Your task to perform on an android device: Go to sound settings Image 0: 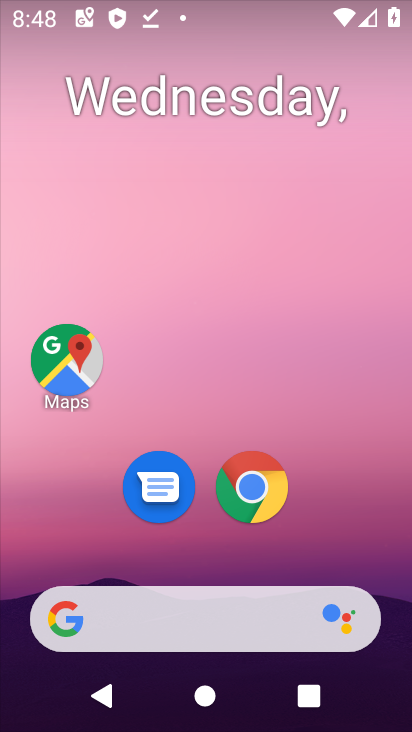
Step 0: drag from (276, 685) to (117, 32)
Your task to perform on an android device: Go to sound settings Image 1: 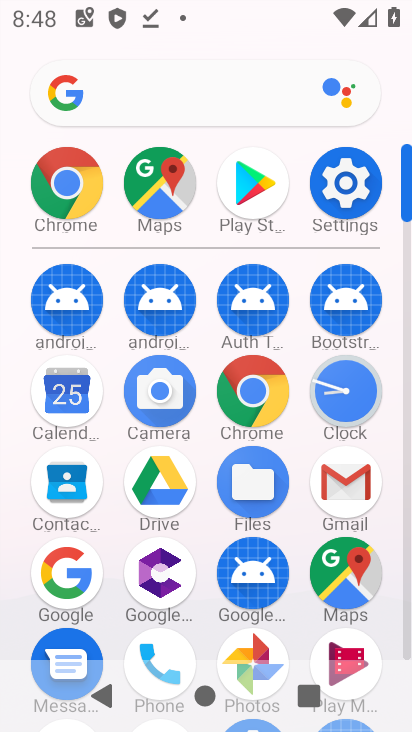
Step 1: click (364, 202)
Your task to perform on an android device: Go to sound settings Image 2: 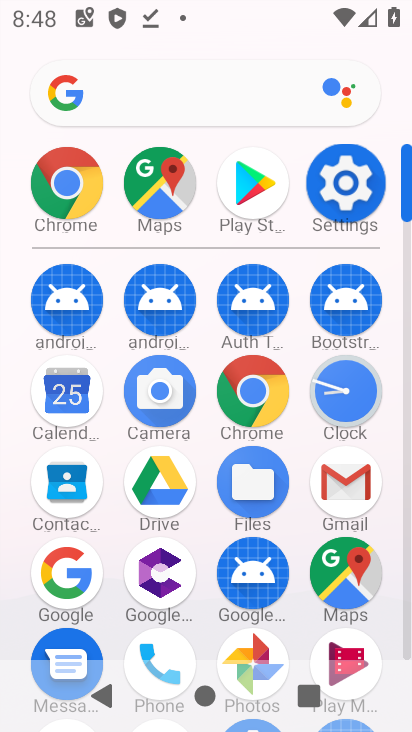
Step 2: click (366, 201)
Your task to perform on an android device: Go to sound settings Image 3: 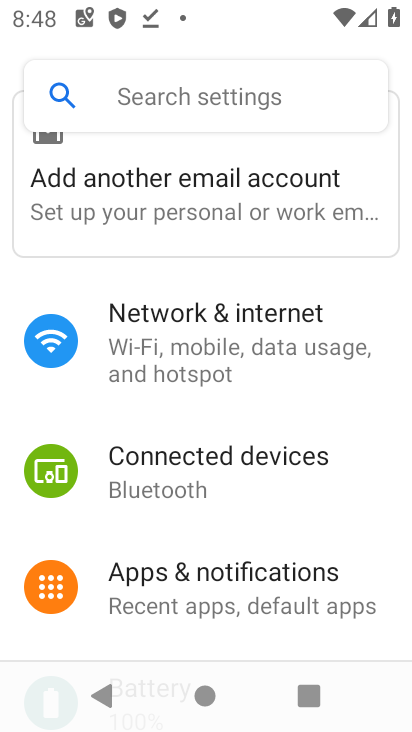
Step 3: drag from (182, 541) to (107, 217)
Your task to perform on an android device: Go to sound settings Image 4: 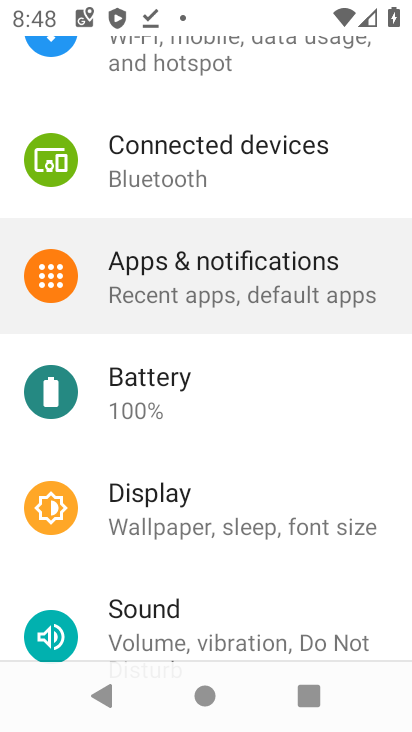
Step 4: drag from (161, 428) to (131, 246)
Your task to perform on an android device: Go to sound settings Image 5: 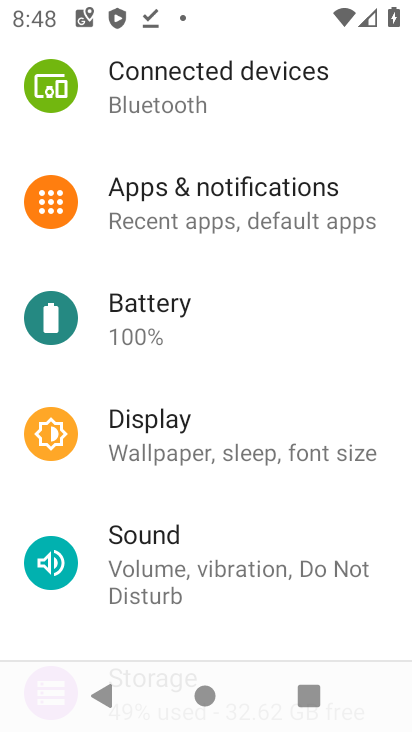
Step 5: drag from (160, 485) to (159, 544)
Your task to perform on an android device: Go to sound settings Image 6: 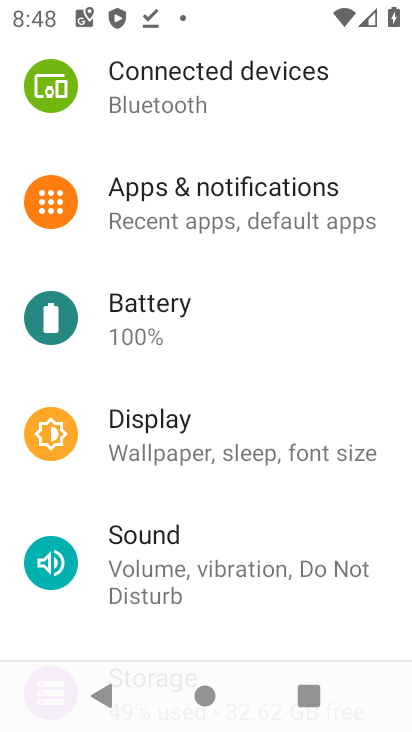
Step 6: click (165, 554)
Your task to perform on an android device: Go to sound settings Image 7: 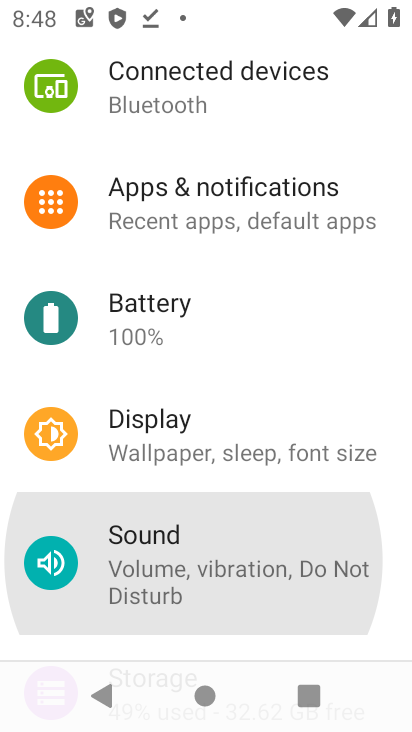
Step 7: click (164, 554)
Your task to perform on an android device: Go to sound settings Image 8: 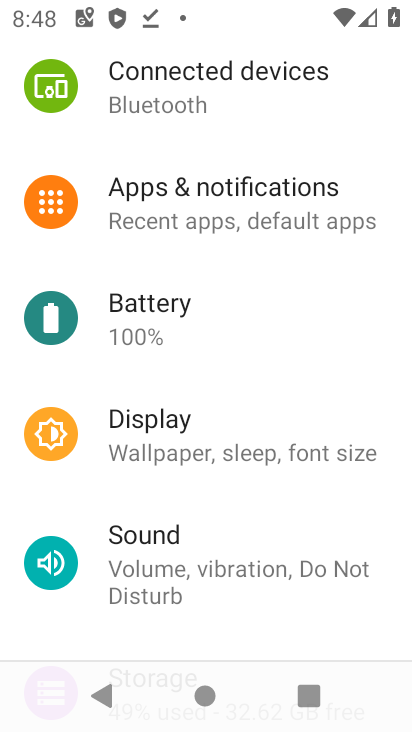
Step 8: click (164, 554)
Your task to perform on an android device: Go to sound settings Image 9: 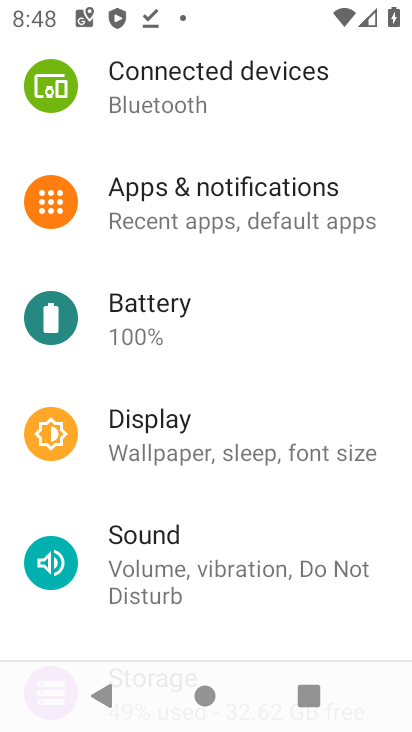
Step 9: click (164, 554)
Your task to perform on an android device: Go to sound settings Image 10: 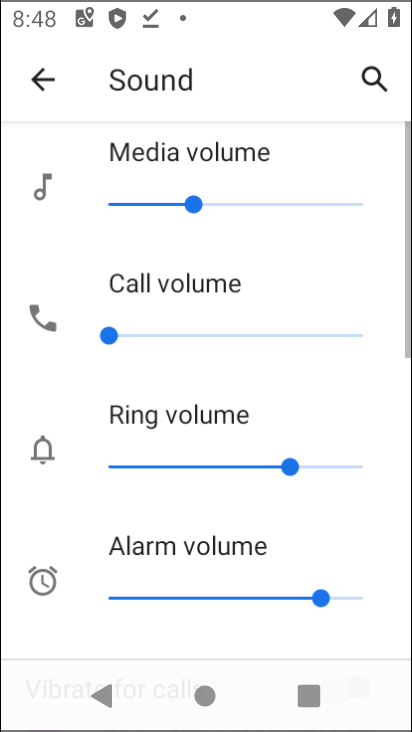
Step 10: click (166, 556)
Your task to perform on an android device: Go to sound settings Image 11: 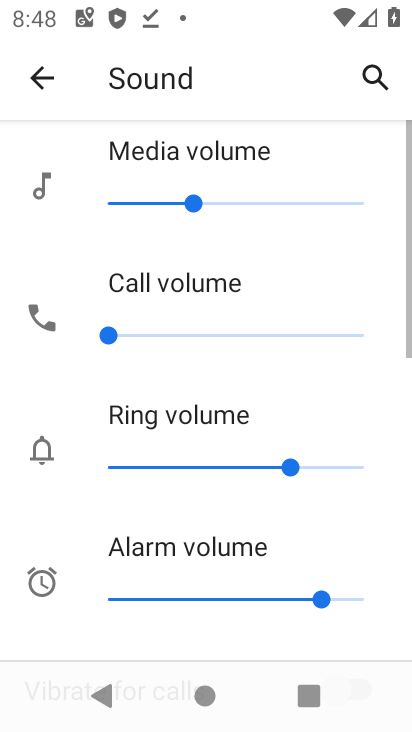
Step 11: click (170, 555)
Your task to perform on an android device: Go to sound settings Image 12: 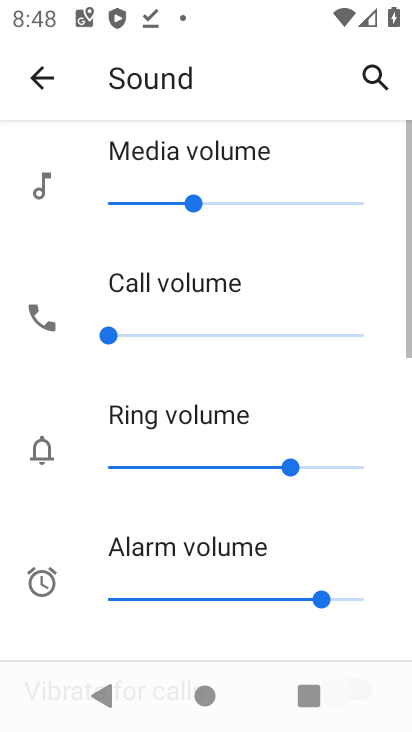
Step 12: click (176, 547)
Your task to perform on an android device: Go to sound settings Image 13: 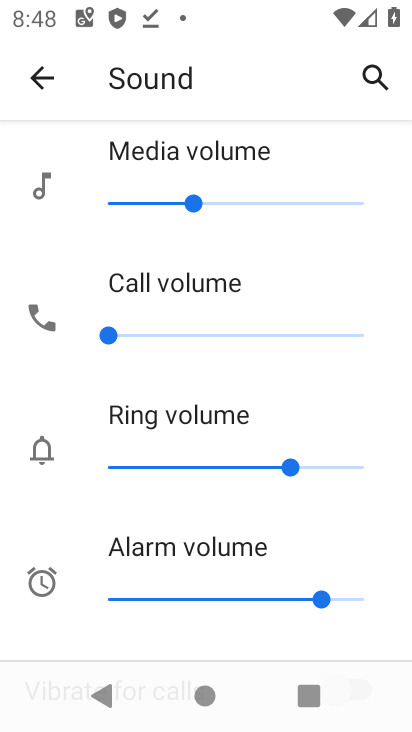
Step 13: task complete